Your task to perform on an android device: set the stopwatch Image 0: 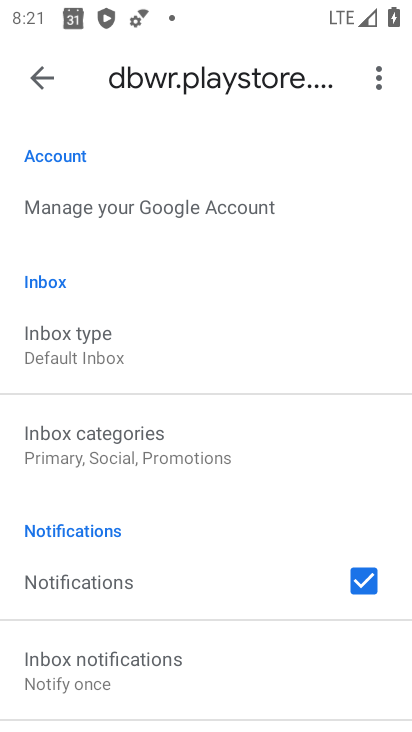
Step 0: press back button
Your task to perform on an android device: set the stopwatch Image 1: 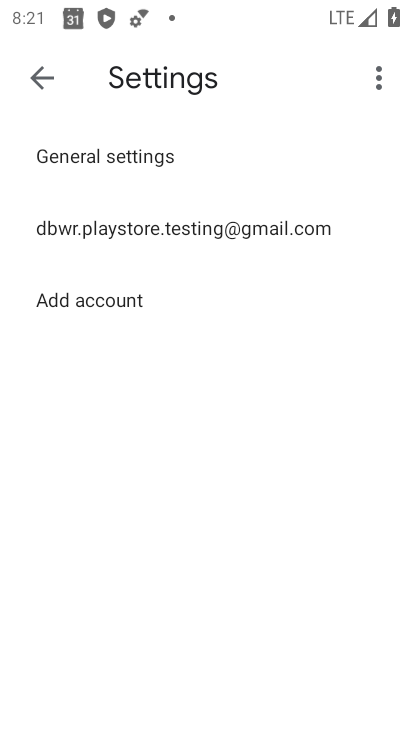
Step 1: press back button
Your task to perform on an android device: set the stopwatch Image 2: 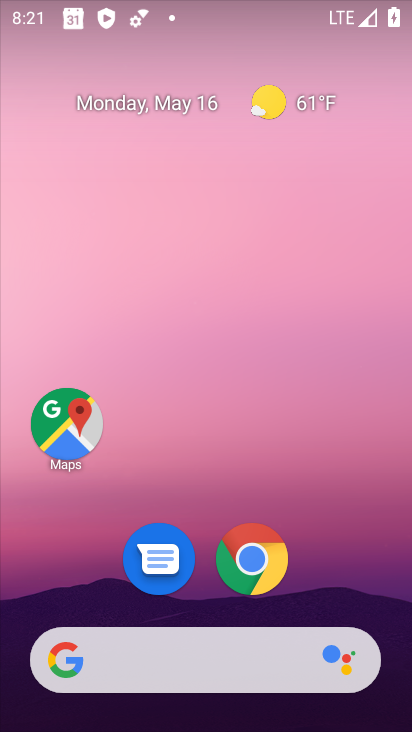
Step 2: drag from (189, 616) to (273, 63)
Your task to perform on an android device: set the stopwatch Image 3: 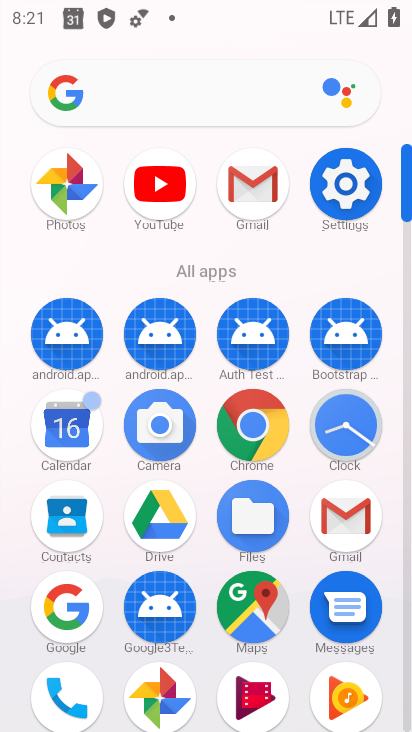
Step 3: click (349, 433)
Your task to perform on an android device: set the stopwatch Image 4: 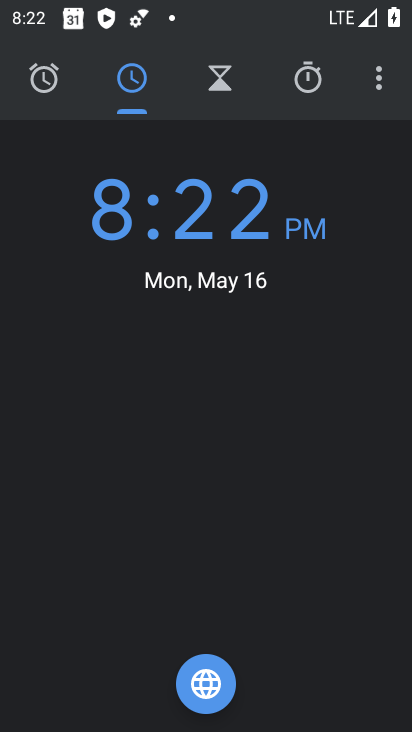
Step 4: click (312, 72)
Your task to perform on an android device: set the stopwatch Image 5: 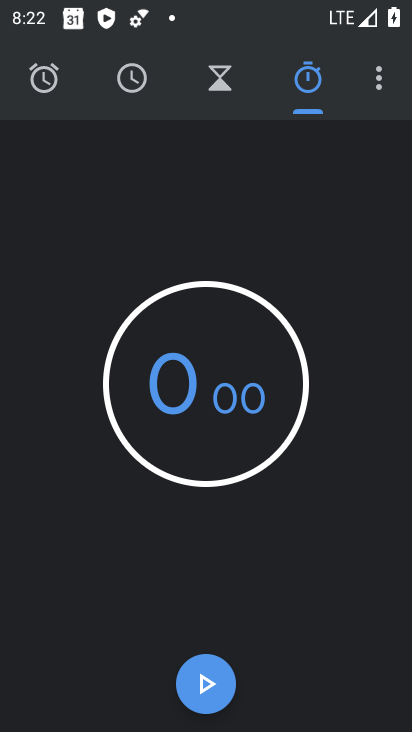
Step 5: task complete